Your task to perform on an android device: Open notification settings Image 0: 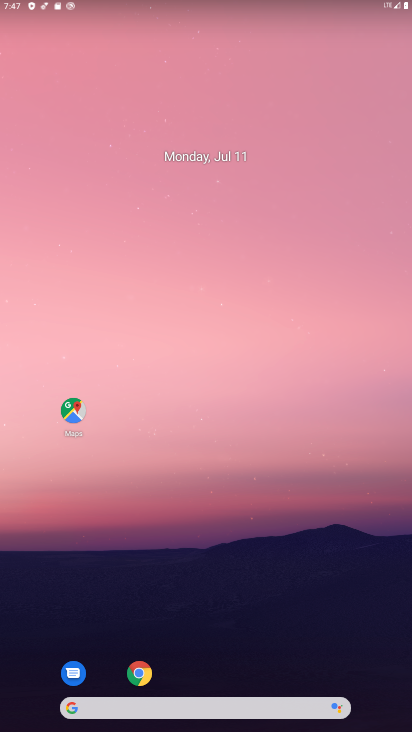
Step 0: drag from (196, 698) to (185, 448)
Your task to perform on an android device: Open notification settings Image 1: 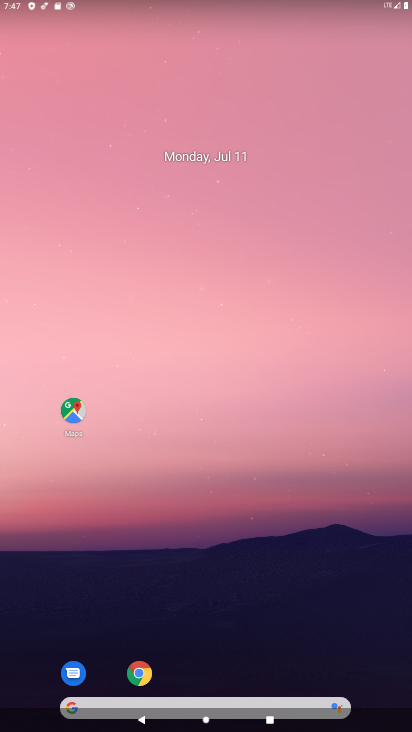
Step 1: drag from (187, 671) to (177, 392)
Your task to perform on an android device: Open notification settings Image 2: 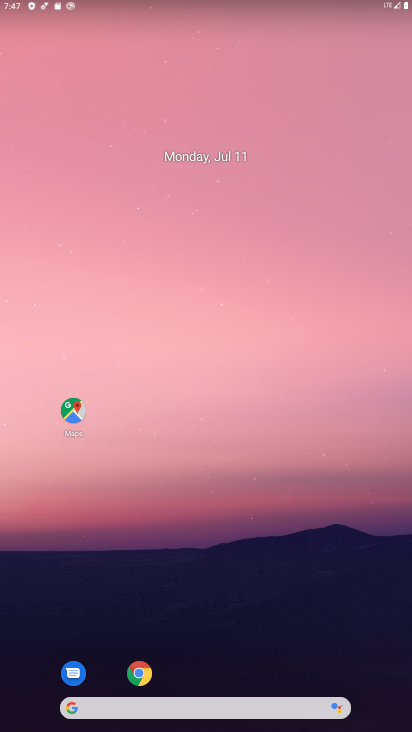
Step 2: drag from (292, 690) to (267, 258)
Your task to perform on an android device: Open notification settings Image 3: 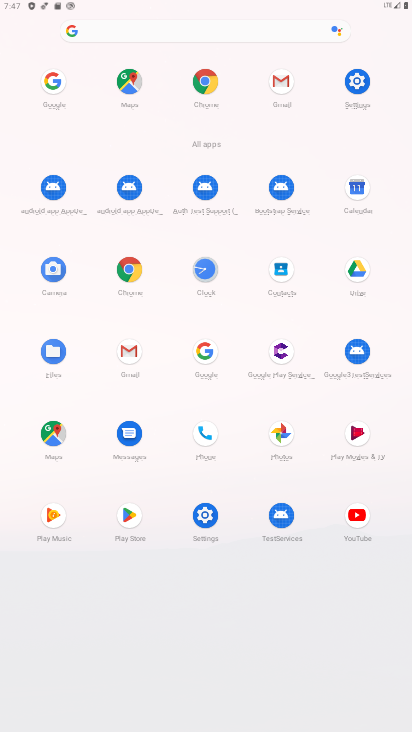
Step 3: click (357, 77)
Your task to perform on an android device: Open notification settings Image 4: 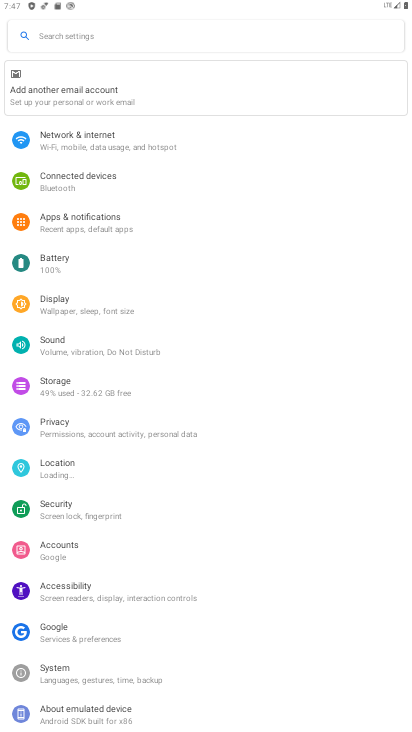
Step 4: click (94, 224)
Your task to perform on an android device: Open notification settings Image 5: 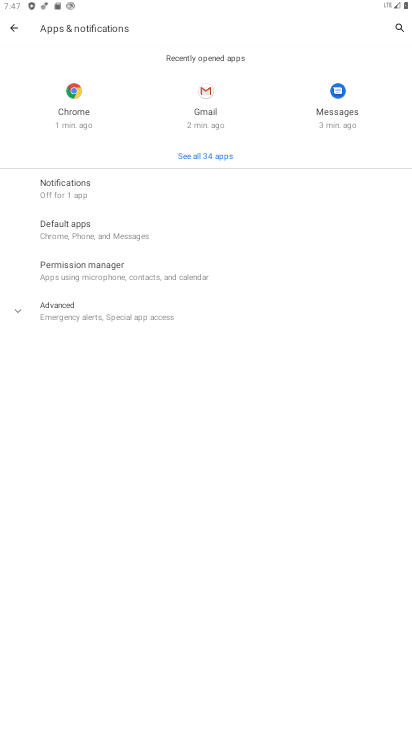
Step 5: click (74, 190)
Your task to perform on an android device: Open notification settings Image 6: 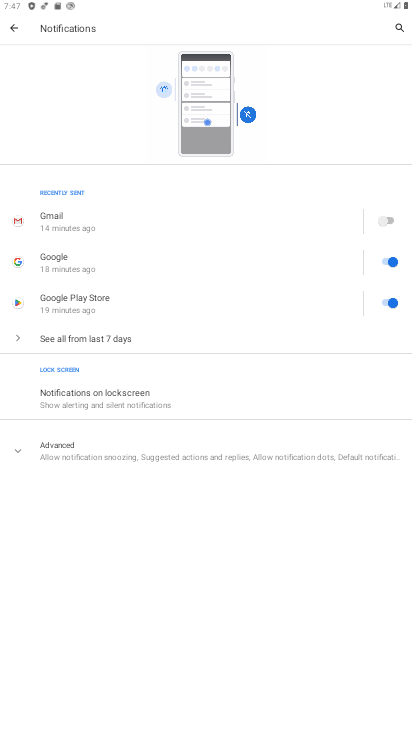
Step 6: click (77, 444)
Your task to perform on an android device: Open notification settings Image 7: 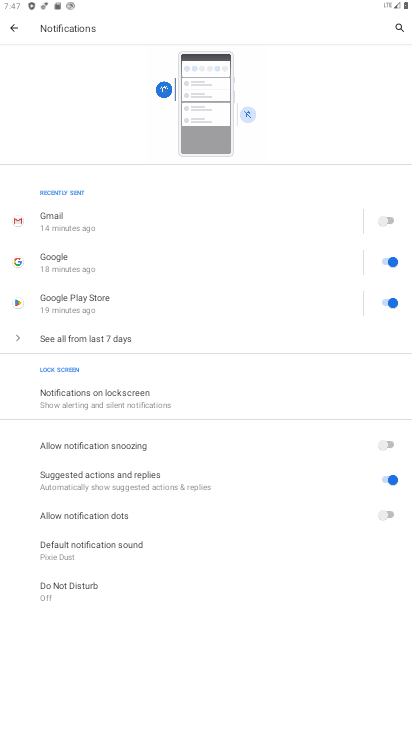
Step 7: task complete